Your task to perform on an android device: all mails in gmail Image 0: 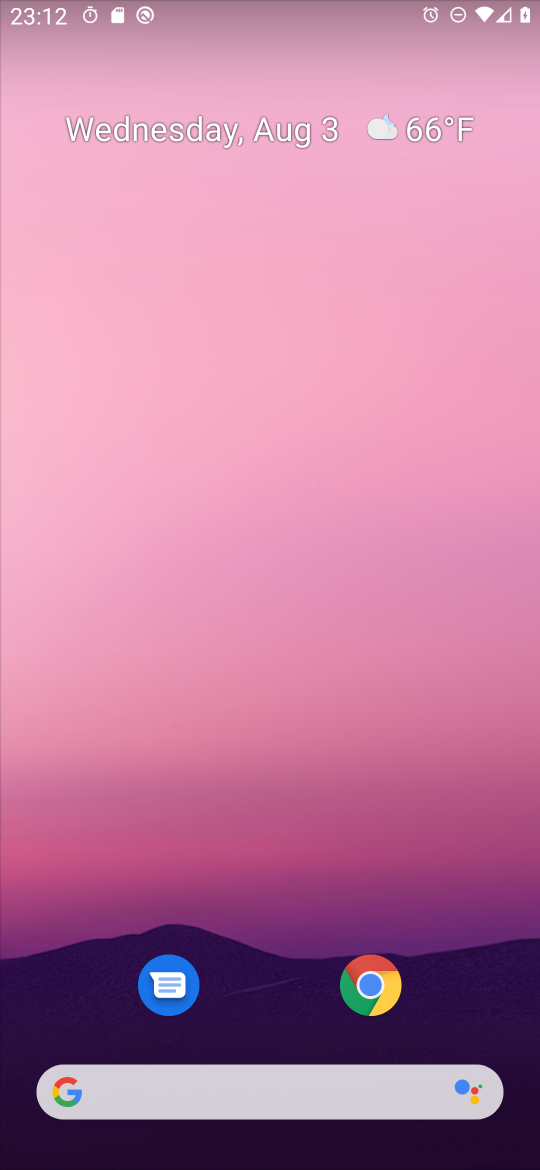
Step 0: drag from (266, 995) to (300, 144)
Your task to perform on an android device: all mails in gmail Image 1: 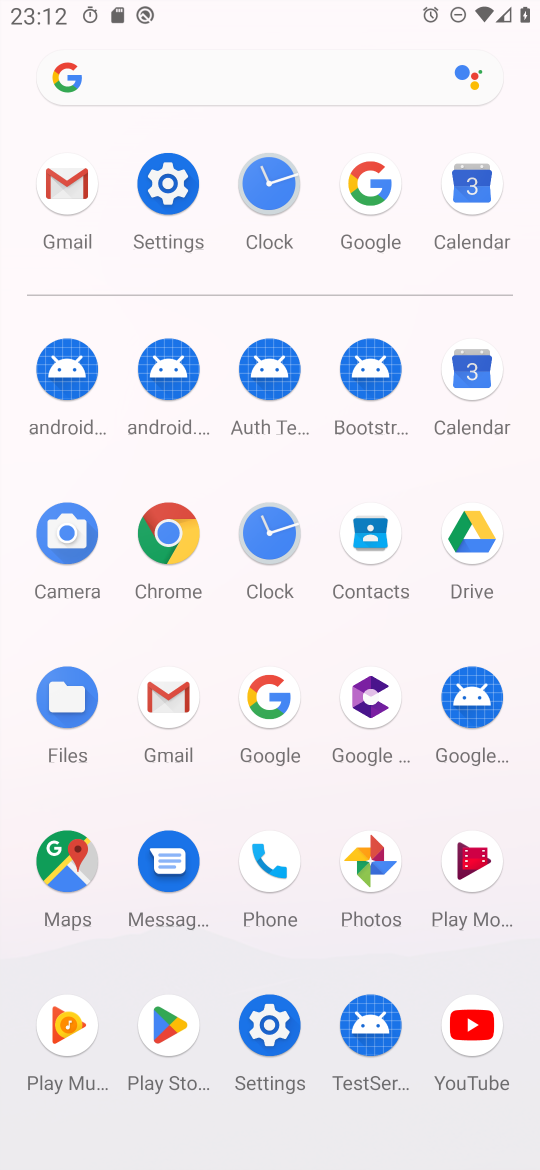
Step 1: click (59, 189)
Your task to perform on an android device: all mails in gmail Image 2: 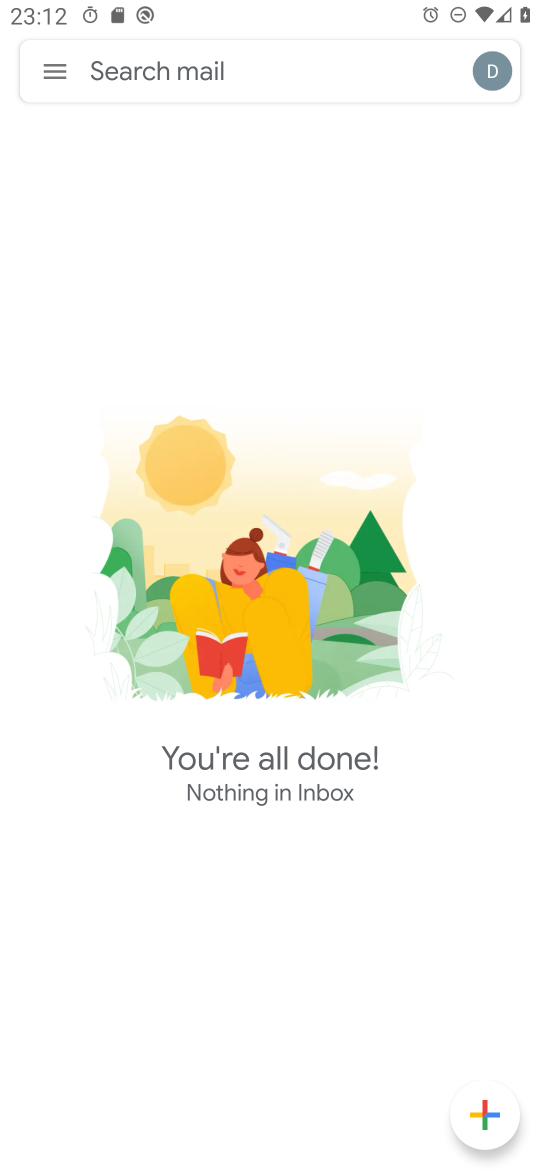
Step 2: click (35, 48)
Your task to perform on an android device: all mails in gmail Image 3: 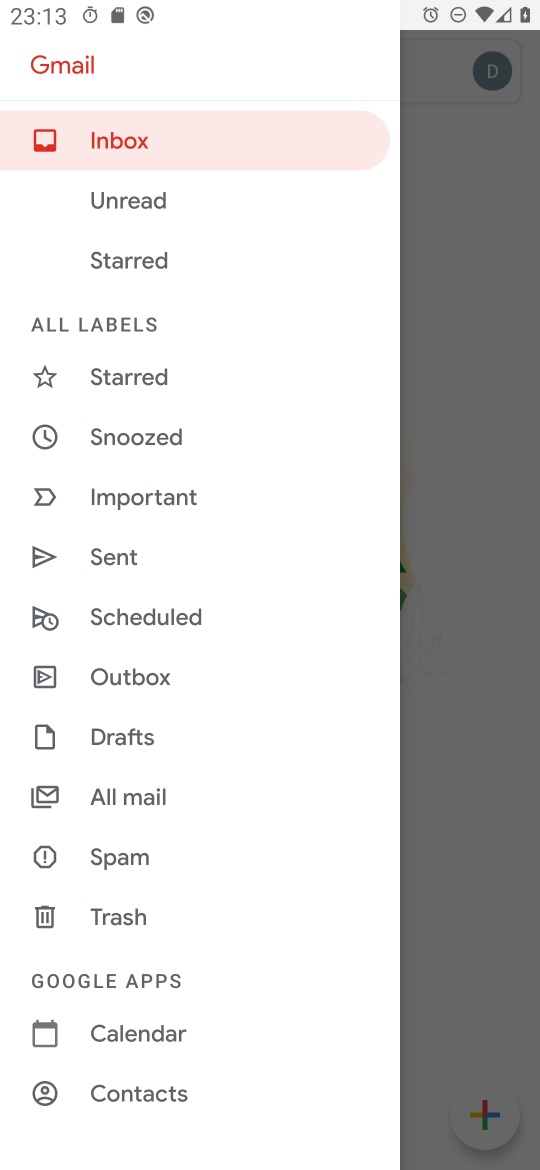
Step 3: click (135, 805)
Your task to perform on an android device: all mails in gmail Image 4: 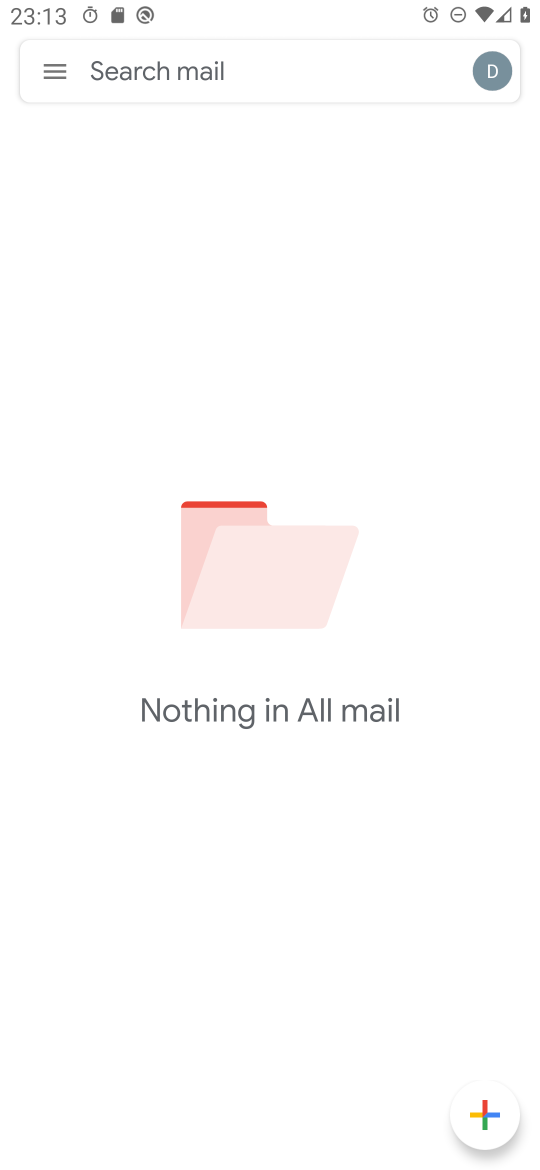
Step 4: task complete